Your task to perform on an android device: What is the recent news? Image 0: 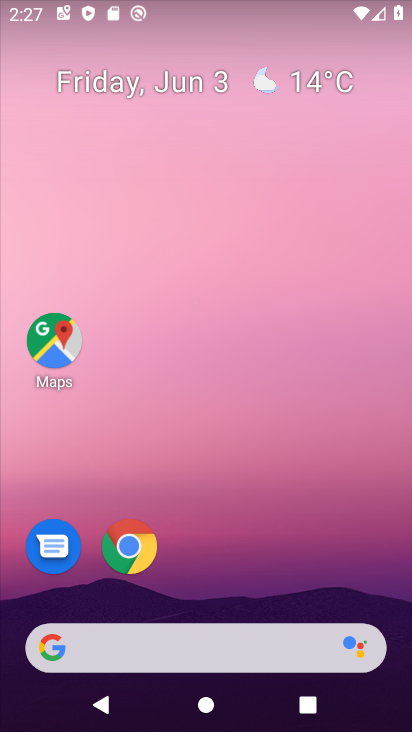
Step 0: drag from (330, 477) to (365, 34)
Your task to perform on an android device: What is the recent news? Image 1: 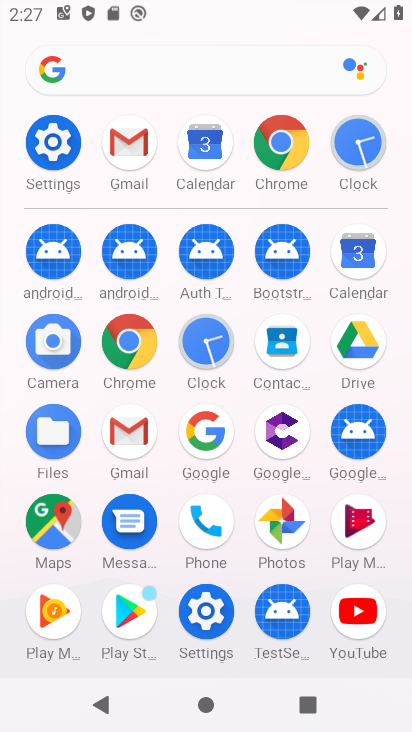
Step 1: click (289, 143)
Your task to perform on an android device: What is the recent news? Image 2: 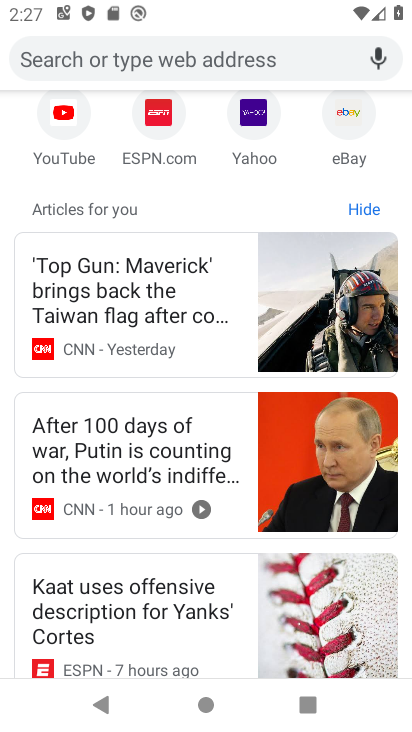
Step 2: task complete